Your task to perform on an android device: Find coffee shops on Maps Image 0: 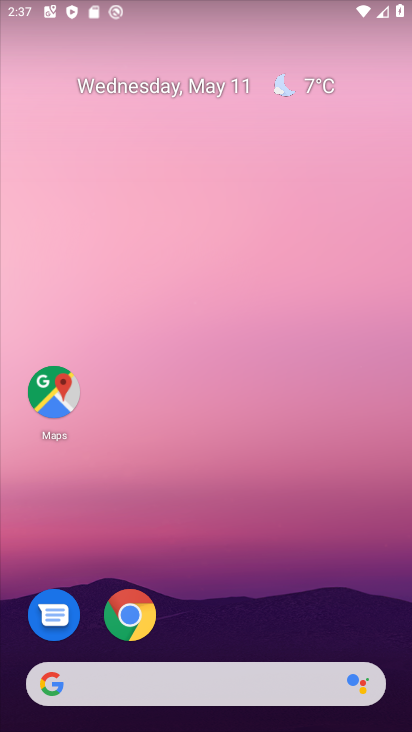
Step 0: click (50, 390)
Your task to perform on an android device: Find coffee shops on Maps Image 1: 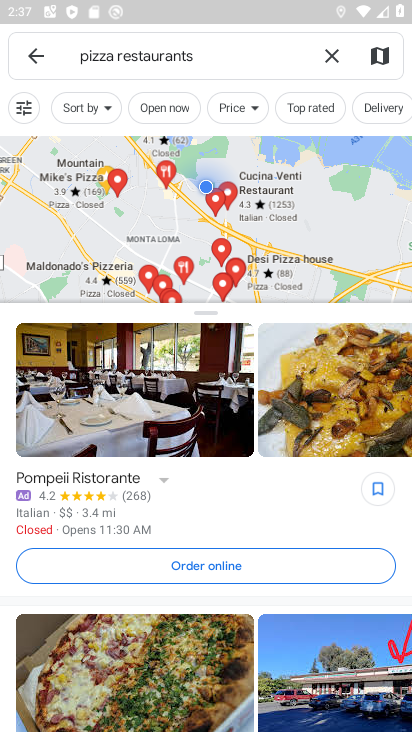
Step 1: click (268, 55)
Your task to perform on an android device: Find coffee shops on Maps Image 2: 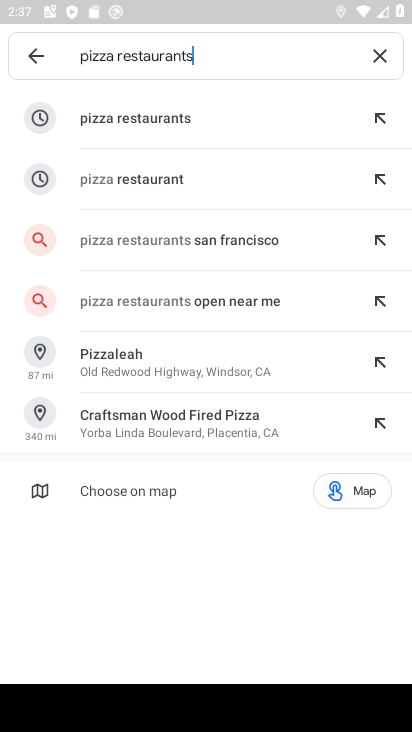
Step 2: click (371, 50)
Your task to perform on an android device: Find coffee shops on Maps Image 3: 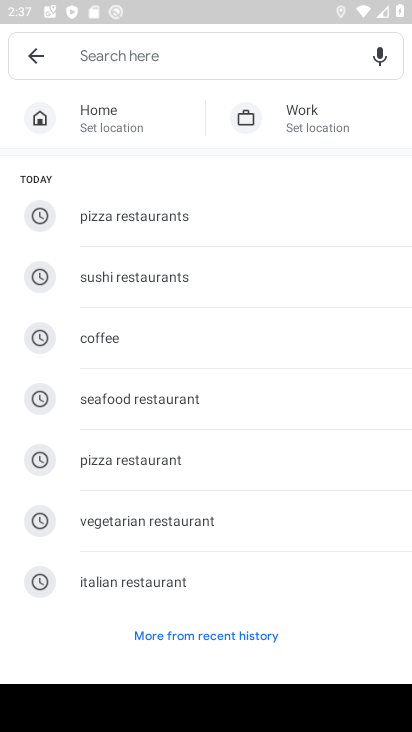
Step 3: type "coffee shops"
Your task to perform on an android device: Find coffee shops on Maps Image 4: 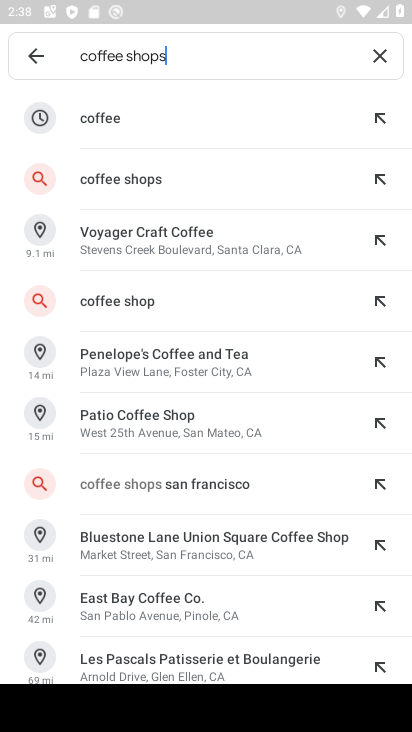
Step 4: click (161, 187)
Your task to perform on an android device: Find coffee shops on Maps Image 5: 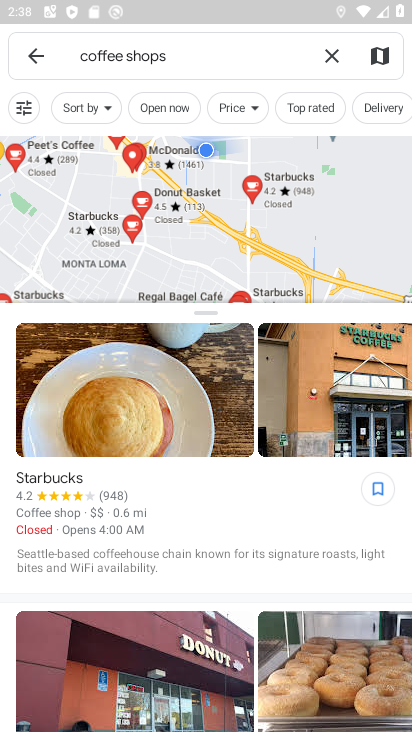
Step 5: task complete